Your task to perform on an android device: Go to settings Image 0: 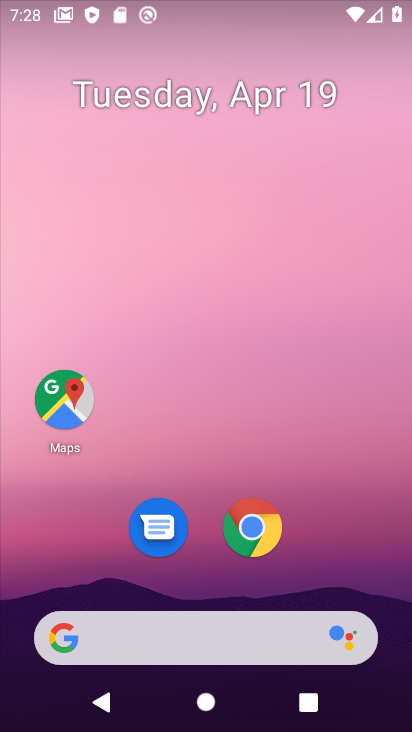
Step 0: drag from (364, 556) to (364, 117)
Your task to perform on an android device: Go to settings Image 1: 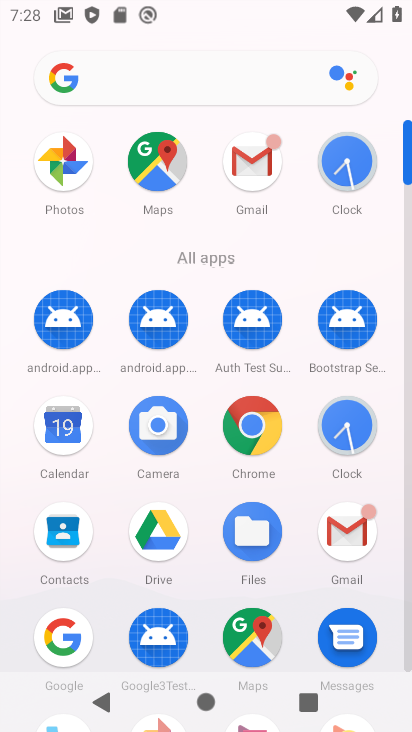
Step 1: drag from (208, 548) to (207, 239)
Your task to perform on an android device: Go to settings Image 2: 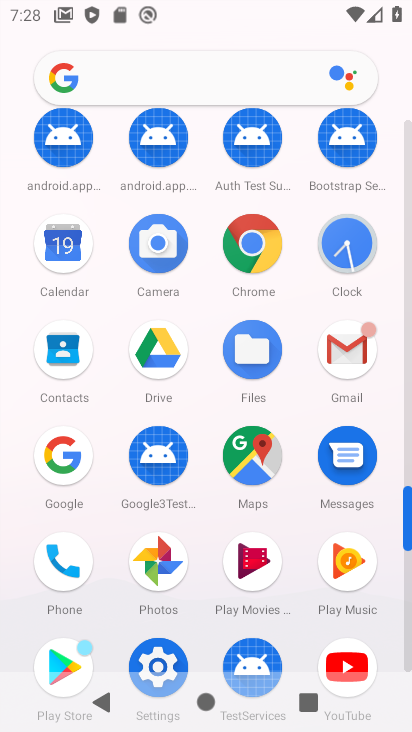
Step 2: click (158, 661)
Your task to perform on an android device: Go to settings Image 3: 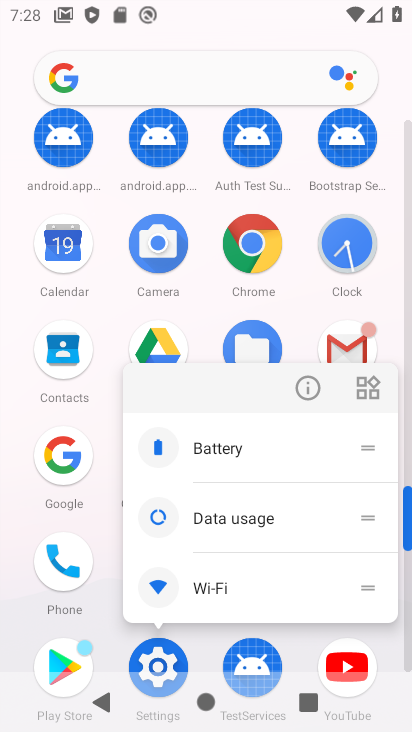
Step 3: click (169, 643)
Your task to perform on an android device: Go to settings Image 4: 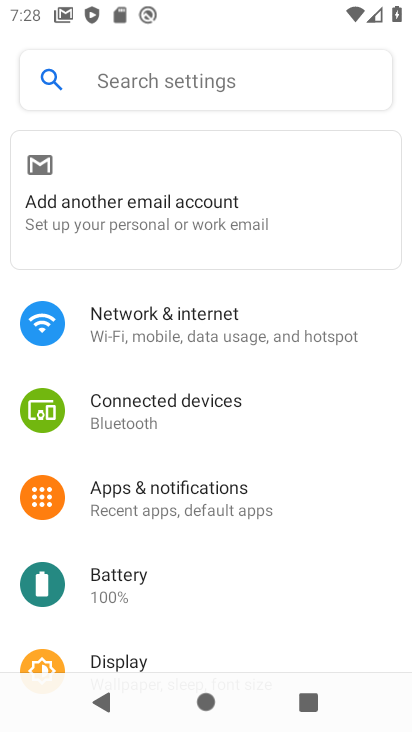
Step 4: task complete